Your task to perform on an android device: toggle priority inbox in the gmail app Image 0: 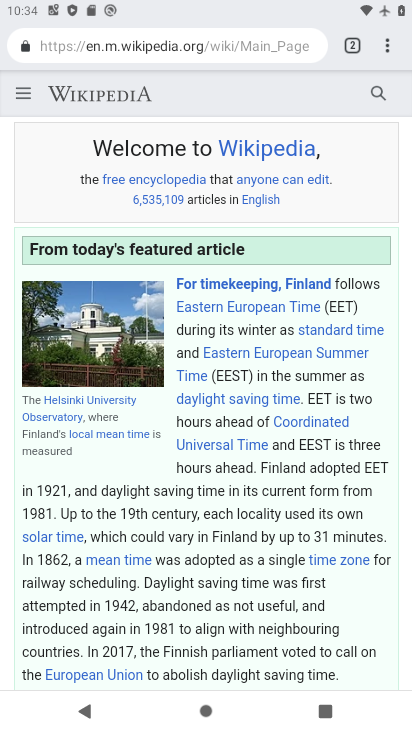
Step 0: press home button
Your task to perform on an android device: toggle priority inbox in the gmail app Image 1: 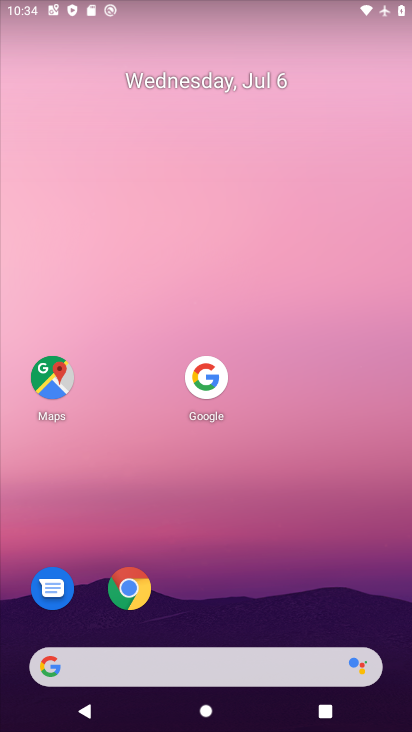
Step 1: drag from (193, 671) to (286, 47)
Your task to perform on an android device: toggle priority inbox in the gmail app Image 2: 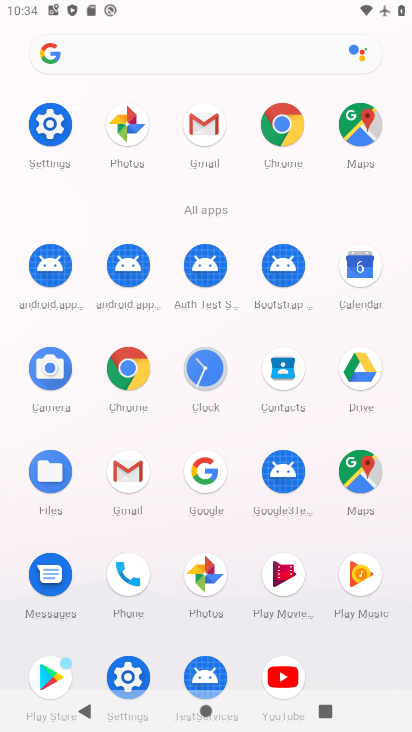
Step 2: click (205, 130)
Your task to perform on an android device: toggle priority inbox in the gmail app Image 3: 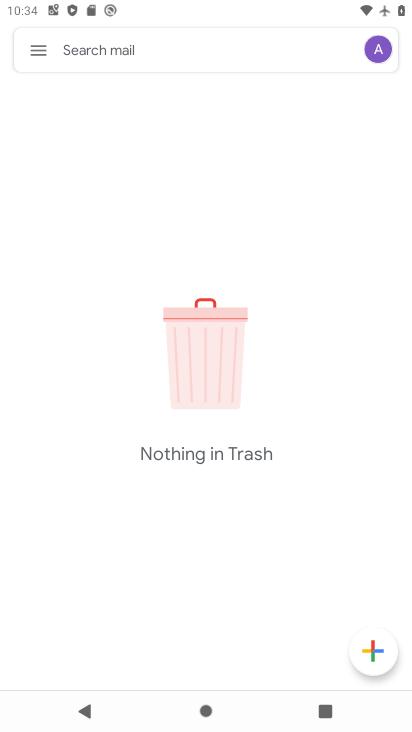
Step 3: click (42, 47)
Your task to perform on an android device: toggle priority inbox in the gmail app Image 4: 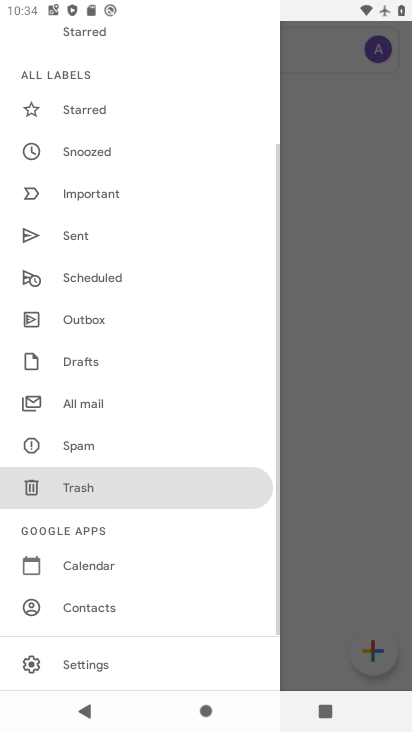
Step 4: drag from (137, 606) to (230, 73)
Your task to perform on an android device: toggle priority inbox in the gmail app Image 5: 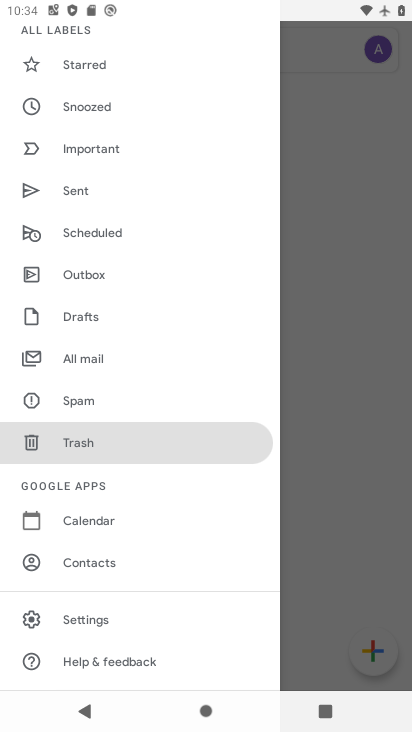
Step 5: click (102, 616)
Your task to perform on an android device: toggle priority inbox in the gmail app Image 6: 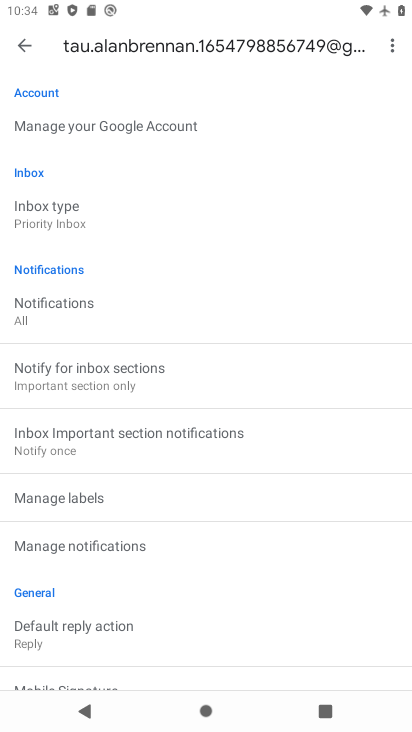
Step 6: click (51, 212)
Your task to perform on an android device: toggle priority inbox in the gmail app Image 7: 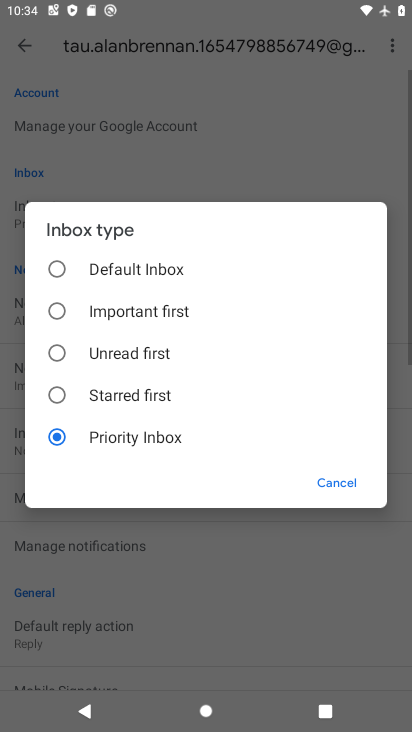
Step 7: click (53, 275)
Your task to perform on an android device: toggle priority inbox in the gmail app Image 8: 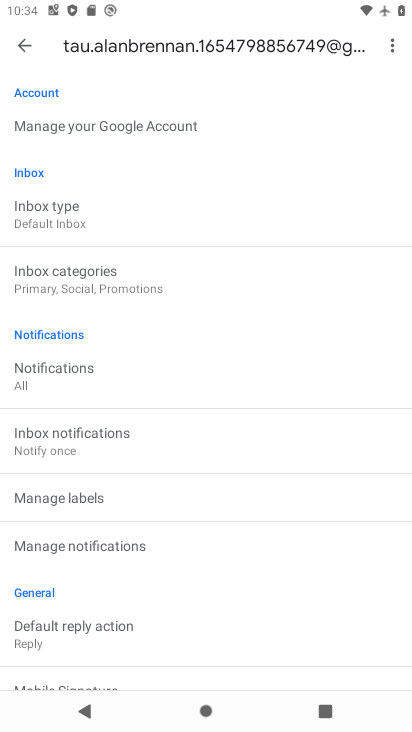
Step 8: task complete